Your task to perform on an android device: Search for Mexican restaurants on Maps Image 0: 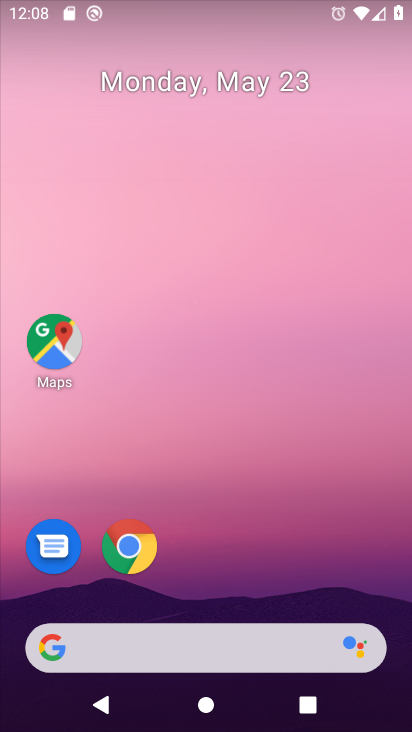
Step 0: drag from (288, 625) to (355, 47)
Your task to perform on an android device: Search for Mexican restaurants on Maps Image 1: 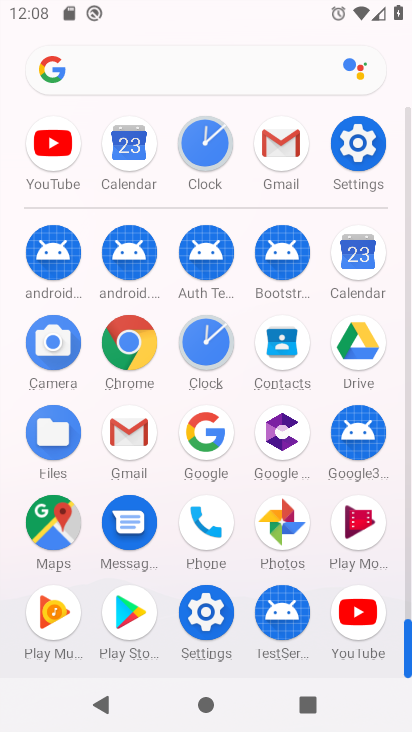
Step 1: click (55, 519)
Your task to perform on an android device: Search for Mexican restaurants on Maps Image 2: 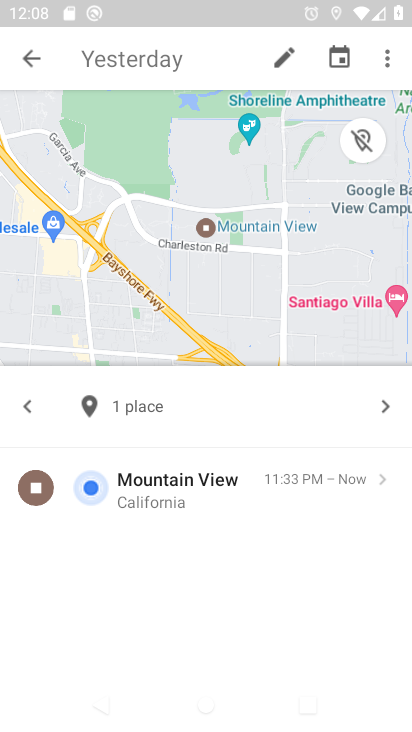
Step 2: click (26, 69)
Your task to perform on an android device: Search for Mexican restaurants on Maps Image 3: 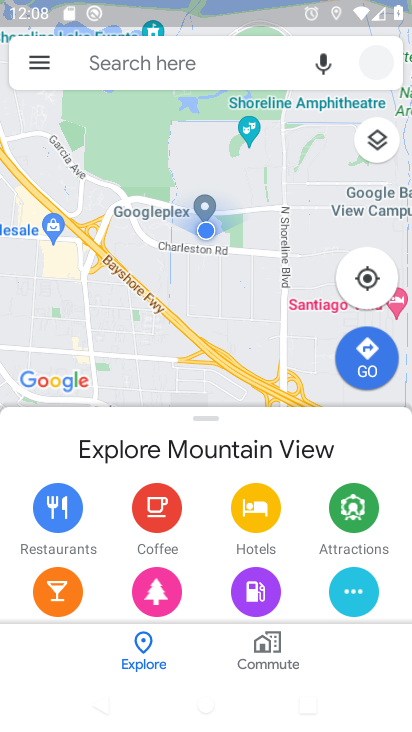
Step 3: click (223, 74)
Your task to perform on an android device: Search for Mexican restaurants on Maps Image 4: 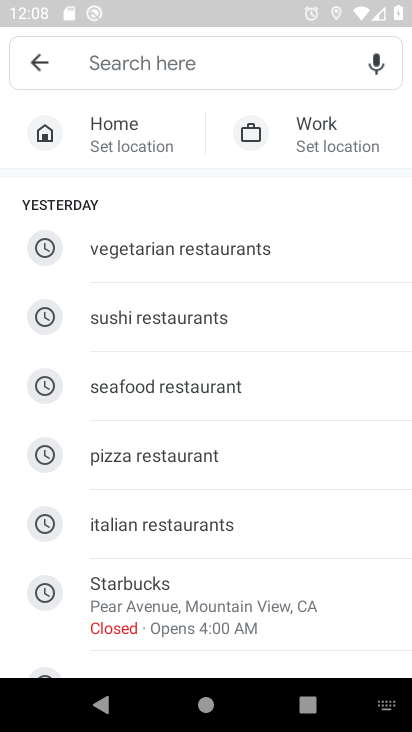
Step 4: type "mexican"
Your task to perform on an android device: Search for Mexican restaurants on Maps Image 5: 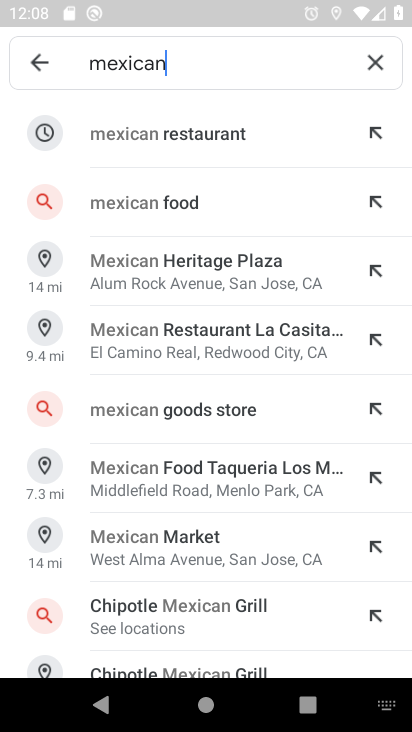
Step 5: click (227, 132)
Your task to perform on an android device: Search for Mexican restaurants on Maps Image 6: 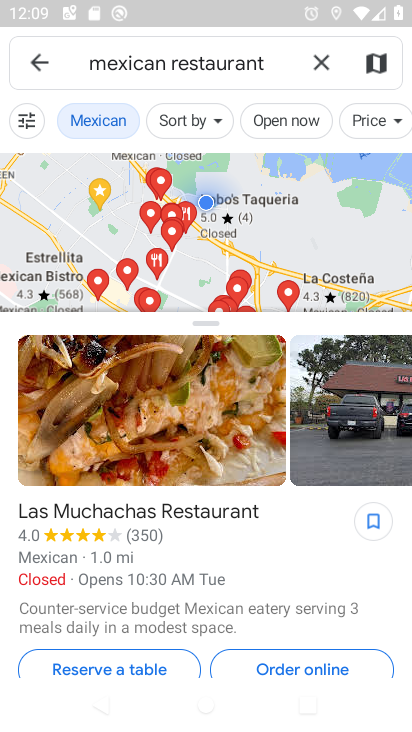
Step 6: task complete